Your task to perform on an android device: Go to privacy settings Image 0: 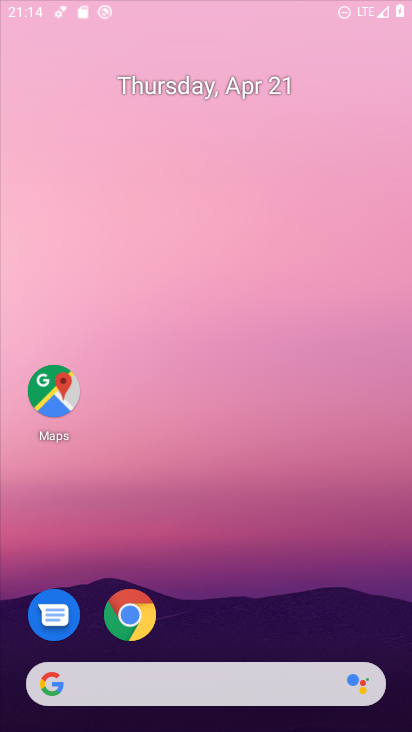
Step 0: drag from (199, 633) to (225, 269)
Your task to perform on an android device: Go to privacy settings Image 1: 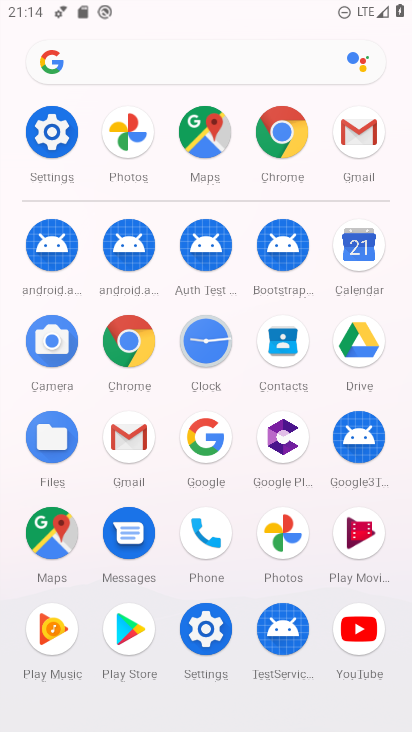
Step 1: click (202, 625)
Your task to perform on an android device: Go to privacy settings Image 2: 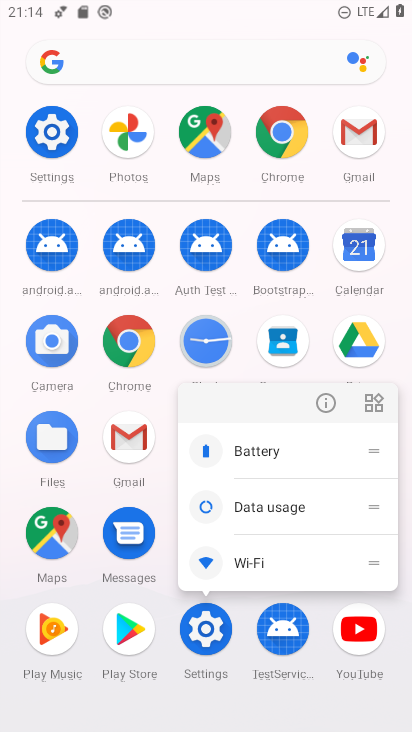
Step 2: click (322, 399)
Your task to perform on an android device: Go to privacy settings Image 3: 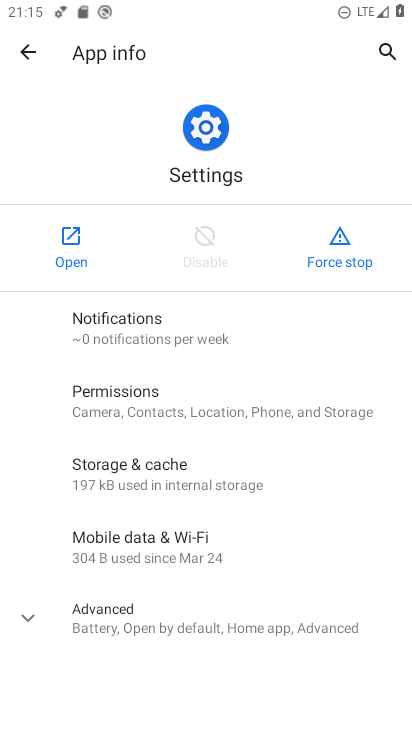
Step 3: click (77, 238)
Your task to perform on an android device: Go to privacy settings Image 4: 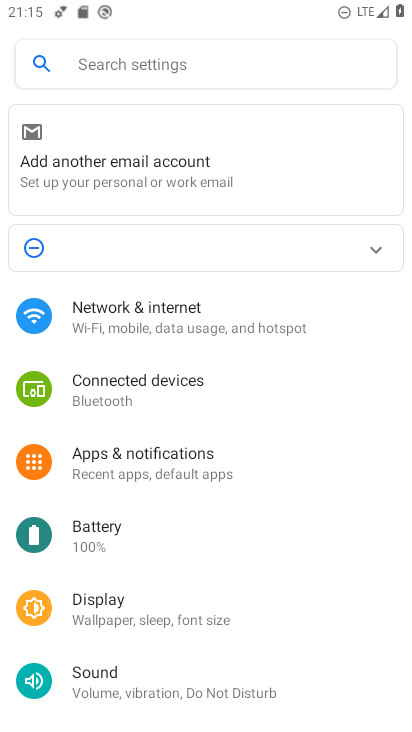
Step 4: drag from (171, 538) to (245, 61)
Your task to perform on an android device: Go to privacy settings Image 5: 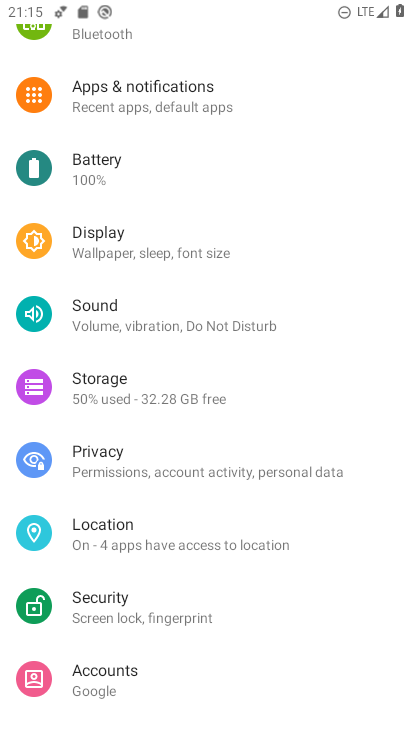
Step 5: click (153, 457)
Your task to perform on an android device: Go to privacy settings Image 6: 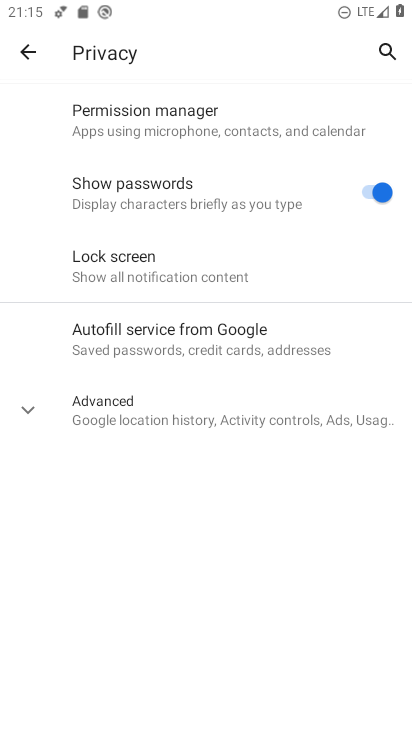
Step 6: task complete